Your task to perform on an android device: search for starred emails in the gmail app Image 0: 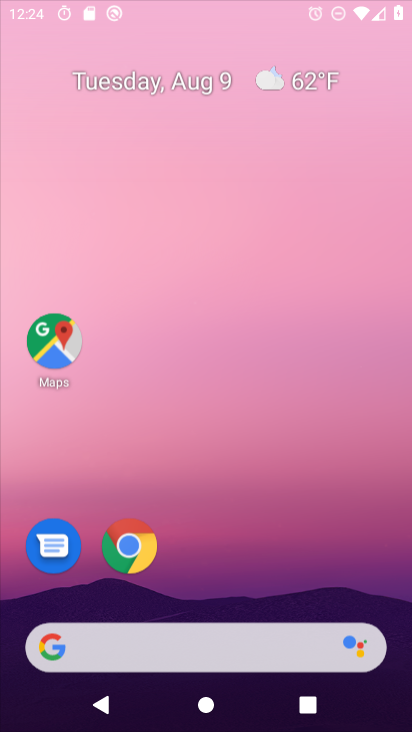
Step 0: press home button
Your task to perform on an android device: search for starred emails in the gmail app Image 1: 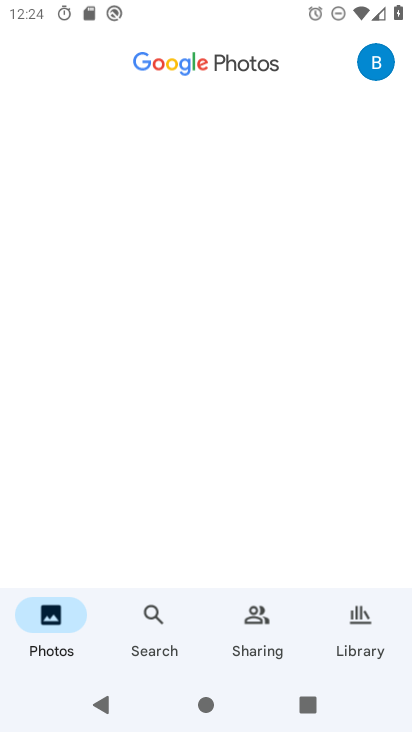
Step 1: drag from (214, 606) to (245, 0)
Your task to perform on an android device: search for starred emails in the gmail app Image 2: 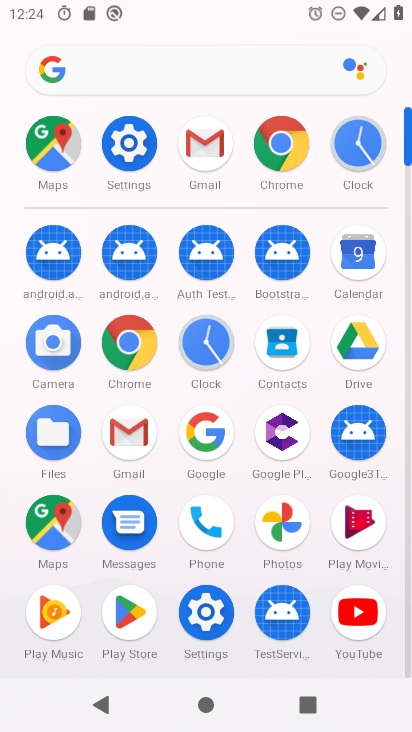
Step 2: click (201, 133)
Your task to perform on an android device: search for starred emails in the gmail app Image 3: 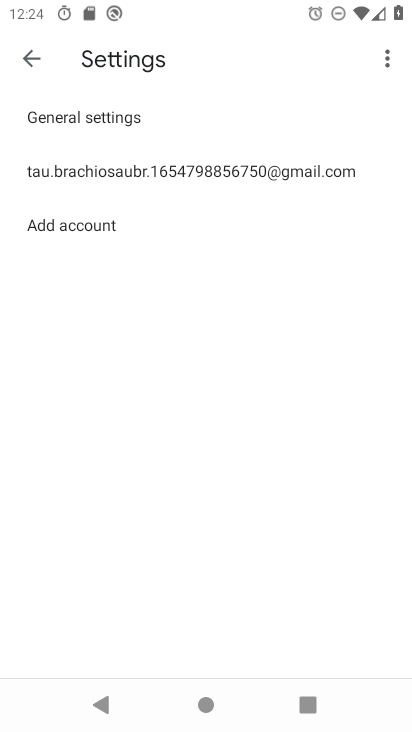
Step 3: click (28, 59)
Your task to perform on an android device: search for starred emails in the gmail app Image 4: 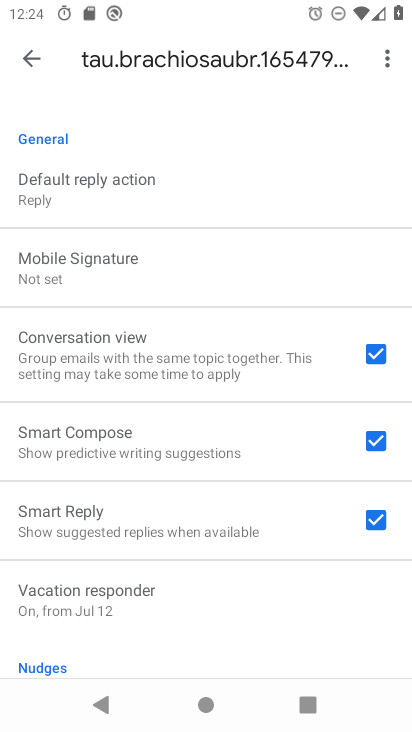
Step 4: click (28, 61)
Your task to perform on an android device: search for starred emails in the gmail app Image 5: 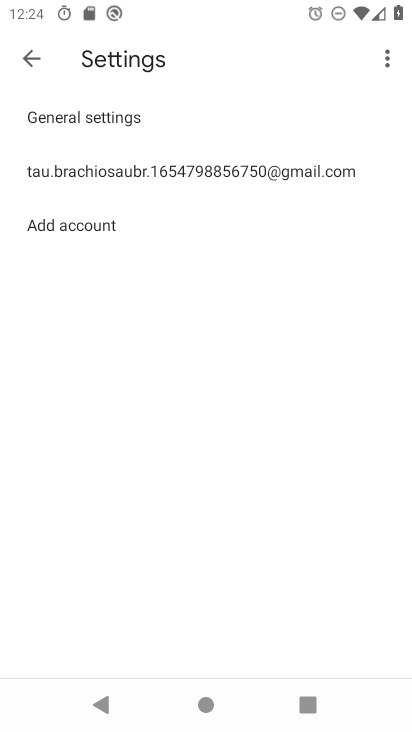
Step 5: click (30, 61)
Your task to perform on an android device: search for starred emails in the gmail app Image 6: 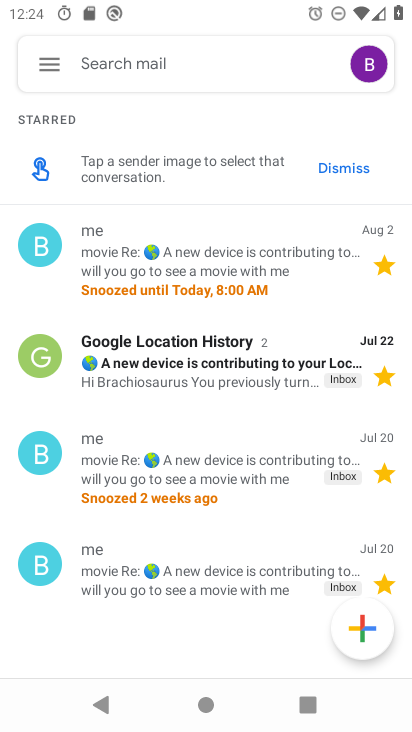
Step 6: click (45, 65)
Your task to perform on an android device: search for starred emails in the gmail app Image 7: 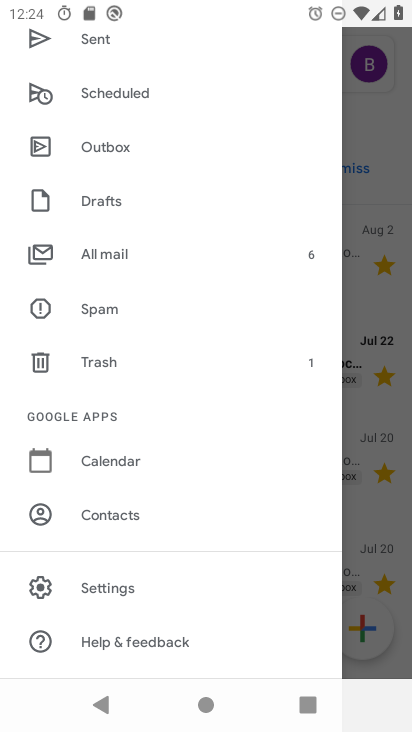
Step 7: drag from (116, 94) to (127, 669)
Your task to perform on an android device: search for starred emails in the gmail app Image 8: 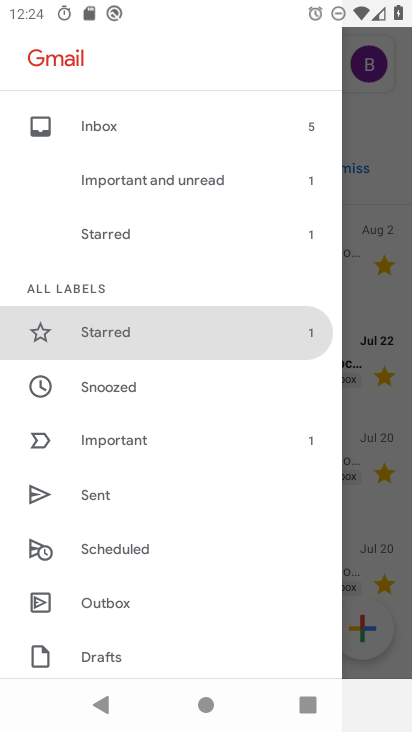
Step 8: click (119, 333)
Your task to perform on an android device: search for starred emails in the gmail app Image 9: 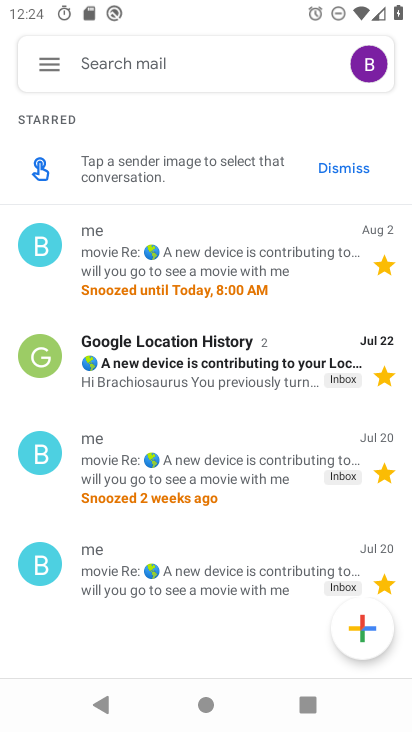
Step 9: task complete